Your task to perform on an android device: check the backup settings in the google photos Image 0: 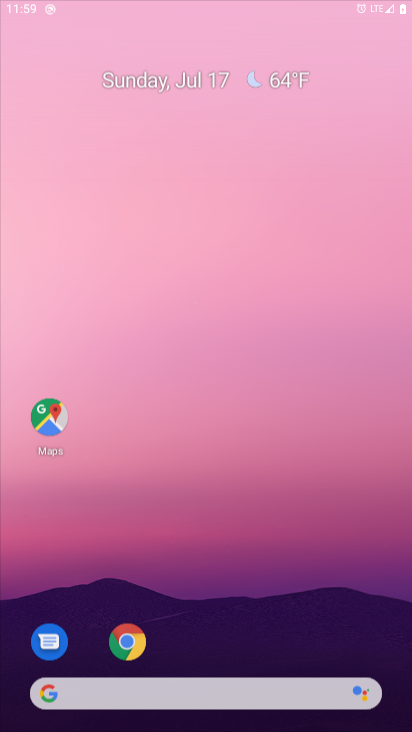
Step 0: press home button
Your task to perform on an android device: check the backup settings in the google photos Image 1: 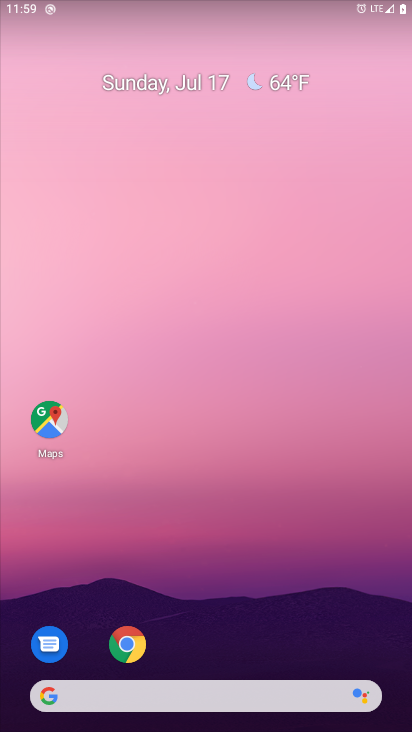
Step 1: drag from (296, 627) to (355, 31)
Your task to perform on an android device: check the backup settings in the google photos Image 2: 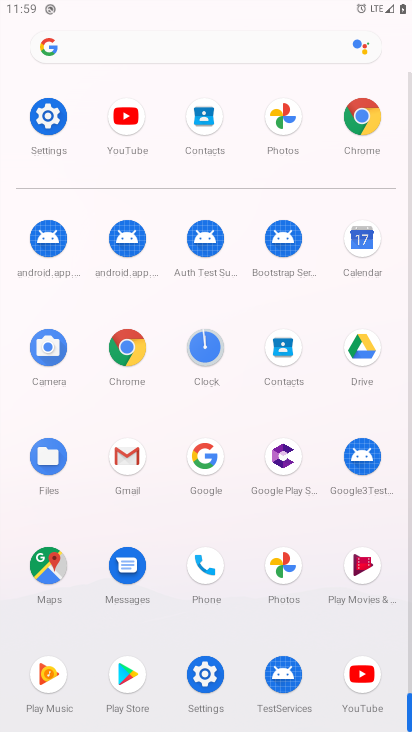
Step 2: click (289, 571)
Your task to perform on an android device: check the backup settings in the google photos Image 3: 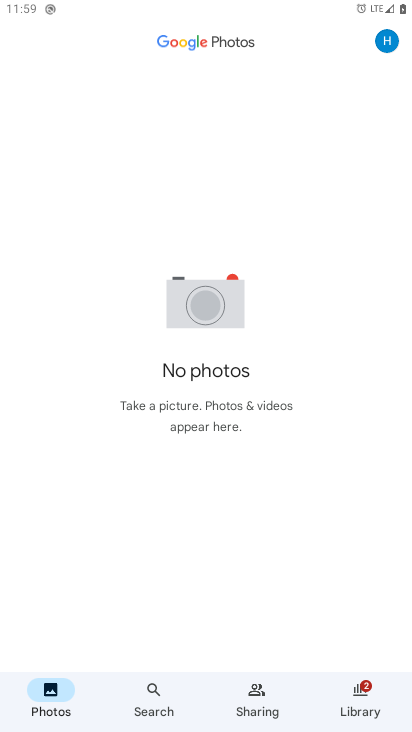
Step 3: click (391, 39)
Your task to perform on an android device: check the backup settings in the google photos Image 4: 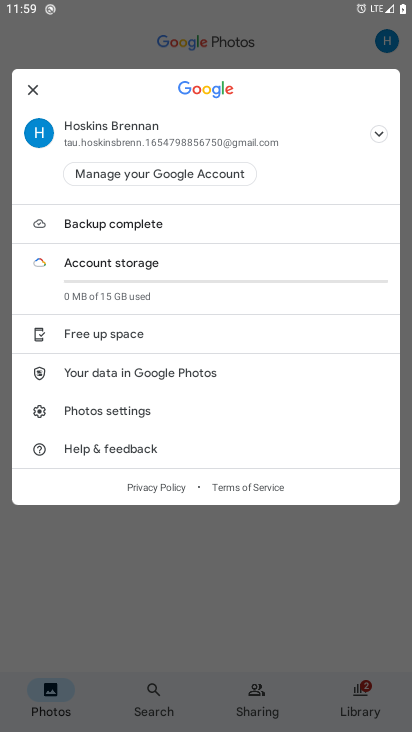
Step 4: click (129, 411)
Your task to perform on an android device: check the backup settings in the google photos Image 5: 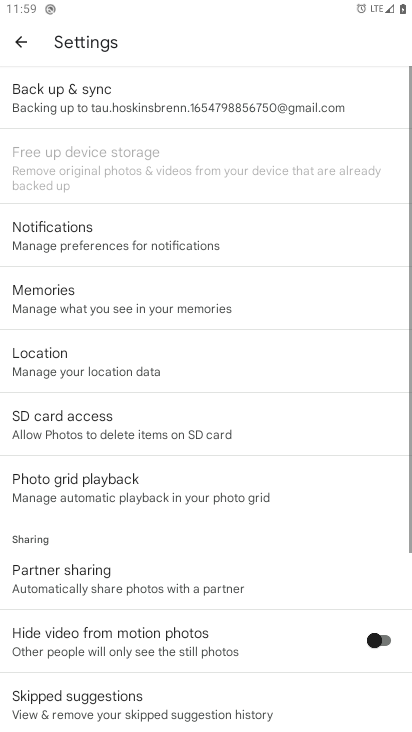
Step 5: click (176, 96)
Your task to perform on an android device: check the backup settings in the google photos Image 6: 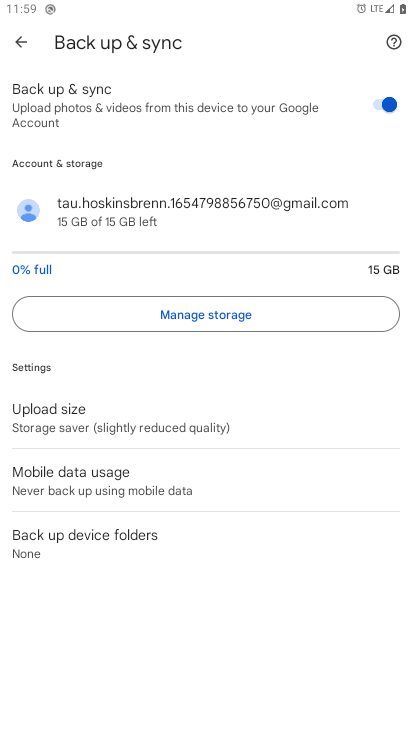
Step 6: task complete